Your task to perform on an android device: turn on translation in the chrome app Image 0: 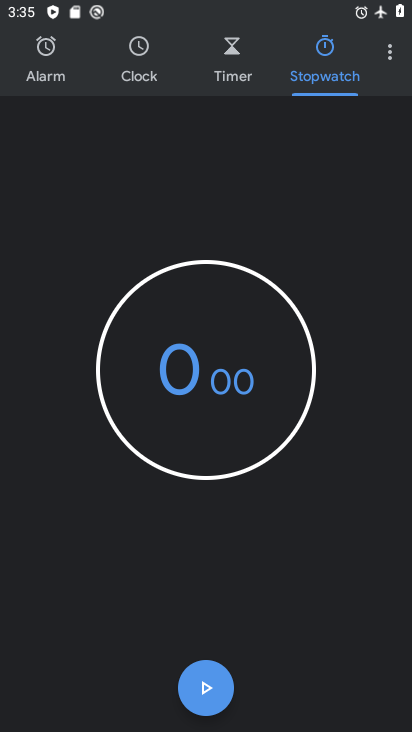
Step 0: press home button
Your task to perform on an android device: turn on translation in the chrome app Image 1: 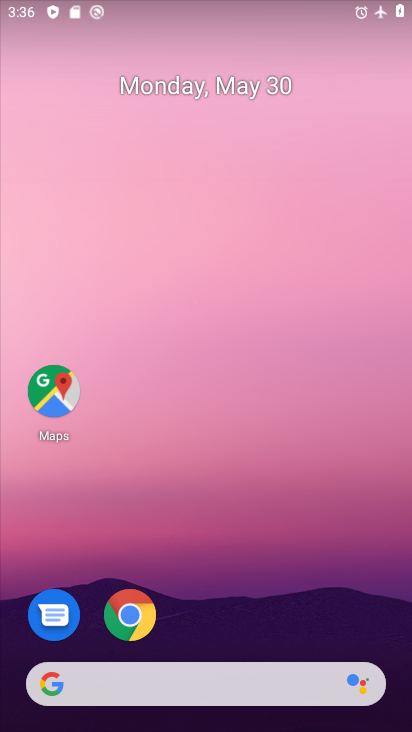
Step 1: click (130, 617)
Your task to perform on an android device: turn on translation in the chrome app Image 2: 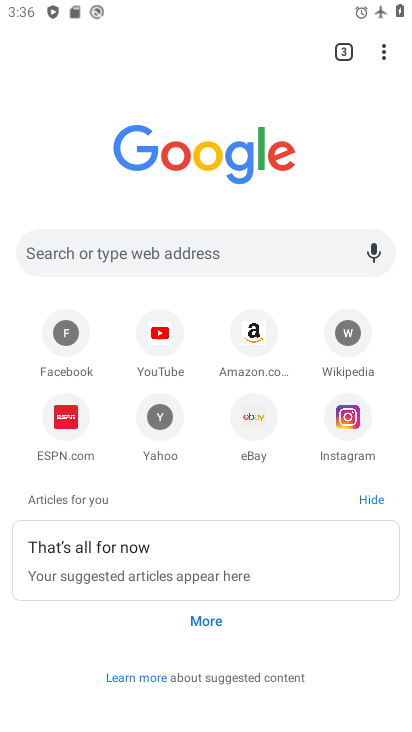
Step 2: click (383, 48)
Your task to perform on an android device: turn on translation in the chrome app Image 3: 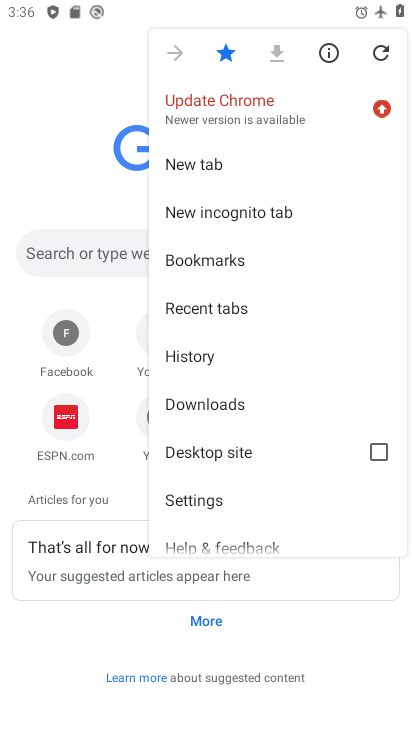
Step 3: click (226, 495)
Your task to perform on an android device: turn on translation in the chrome app Image 4: 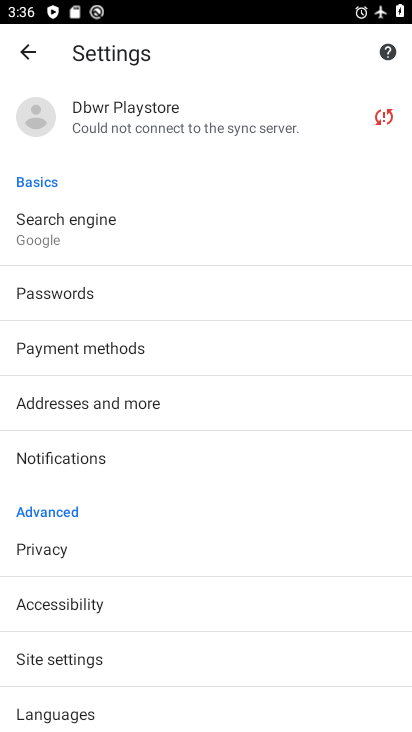
Step 4: click (159, 710)
Your task to perform on an android device: turn on translation in the chrome app Image 5: 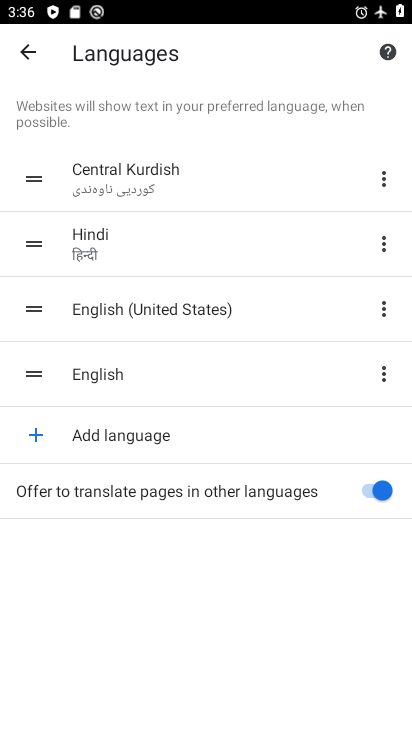
Step 5: task complete